Your task to perform on an android device: Open location settings Image 0: 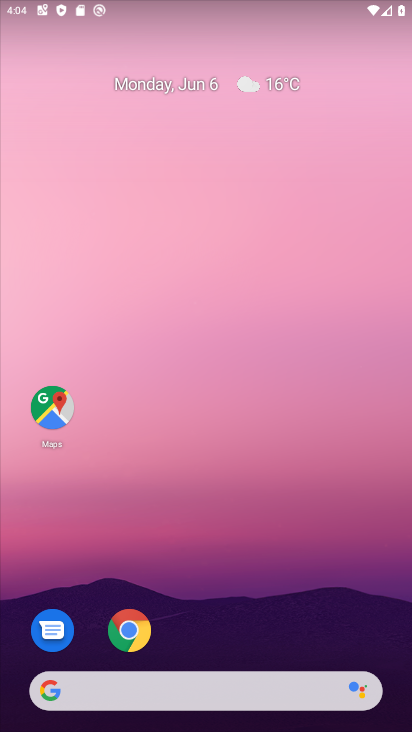
Step 0: drag from (316, 547) to (358, 80)
Your task to perform on an android device: Open location settings Image 1: 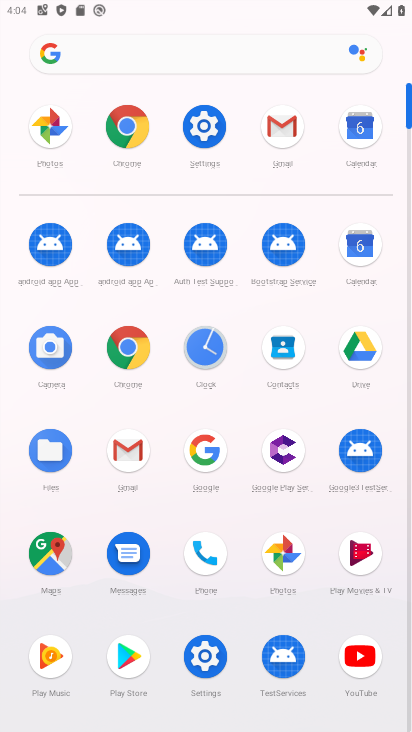
Step 1: click (201, 129)
Your task to perform on an android device: Open location settings Image 2: 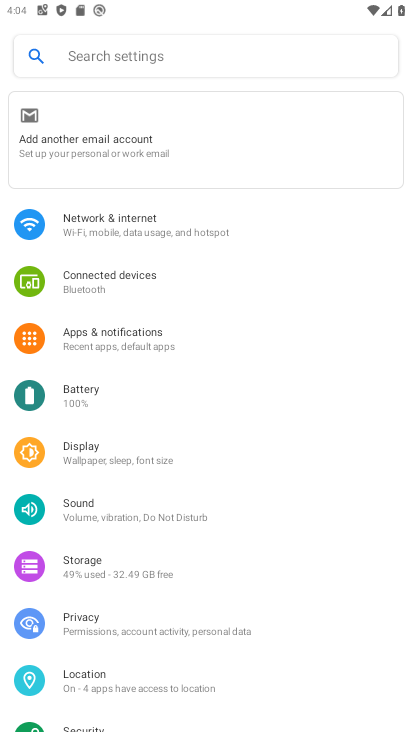
Step 2: click (111, 693)
Your task to perform on an android device: Open location settings Image 3: 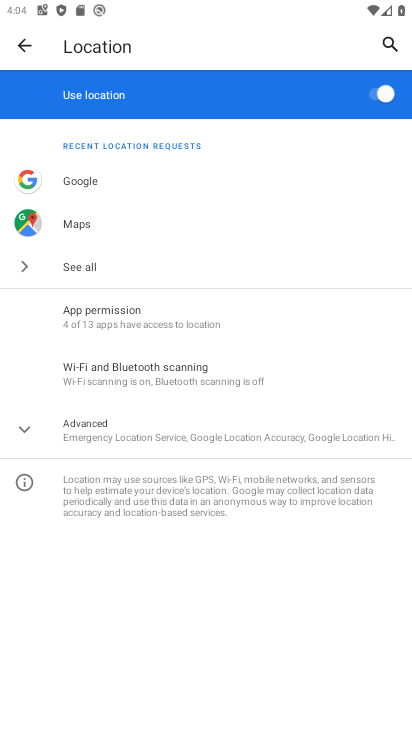
Step 3: task complete